Your task to perform on an android device: turn off notifications in google photos Image 0: 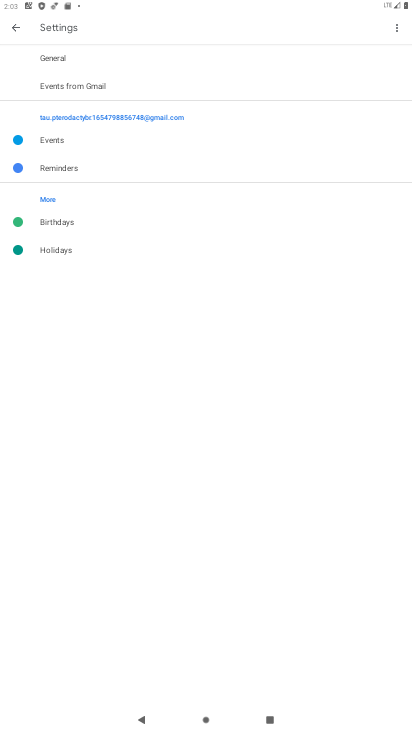
Step 0: press home button
Your task to perform on an android device: turn off notifications in google photos Image 1: 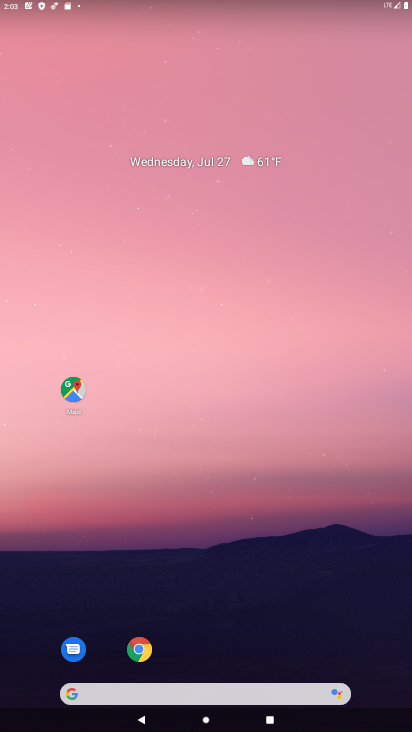
Step 1: drag from (167, 601) to (189, 36)
Your task to perform on an android device: turn off notifications in google photos Image 2: 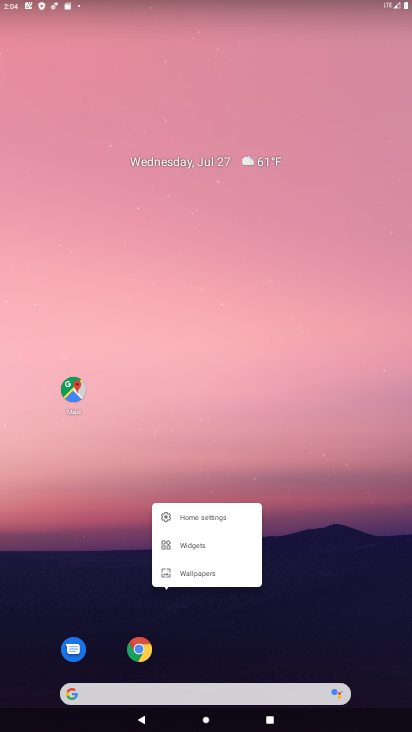
Step 2: click (183, 645)
Your task to perform on an android device: turn off notifications in google photos Image 3: 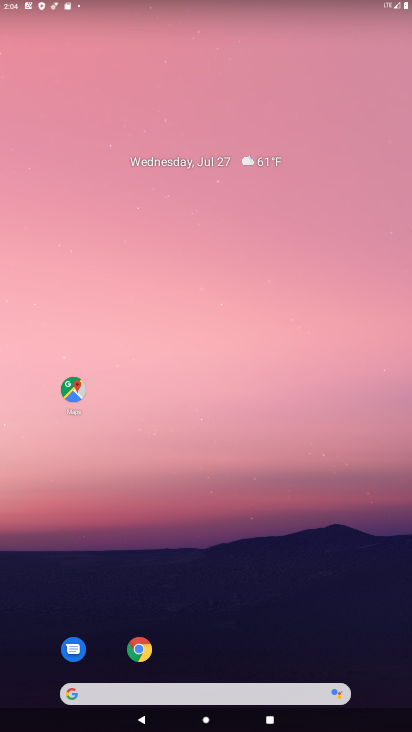
Step 3: drag from (177, 573) to (177, 135)
Your task to perform on an android device: turn off notifications in google photos Image 4: 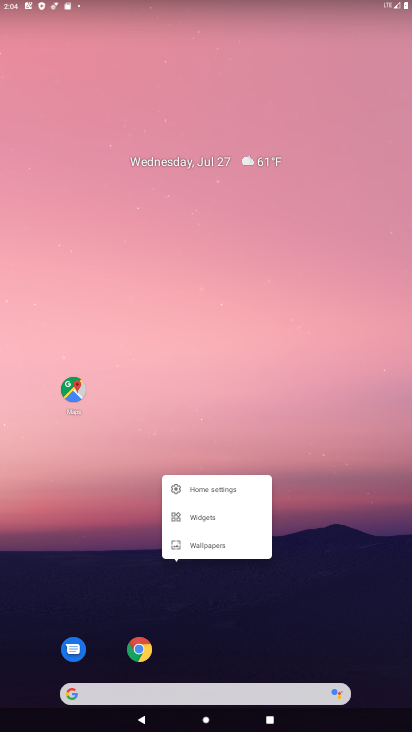
Step 4: click (185, 612)
Your task to perform on an android device: turn off notifications in google photos Image 5: 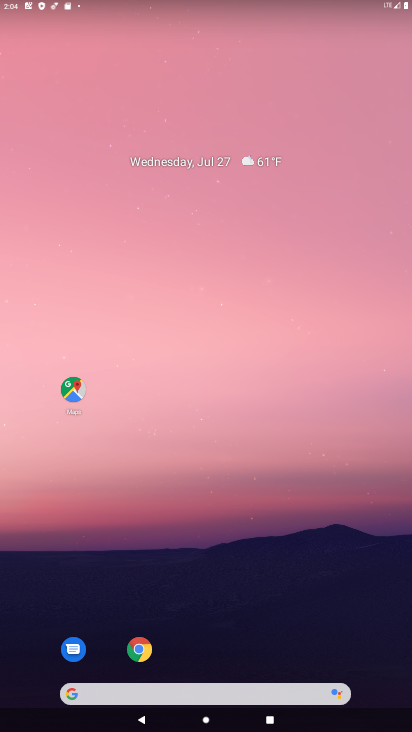
Step 5: drag from (185, 661) to (198, 199)
Your task to perform on an android device: turn off notifications in google photos Image 6: 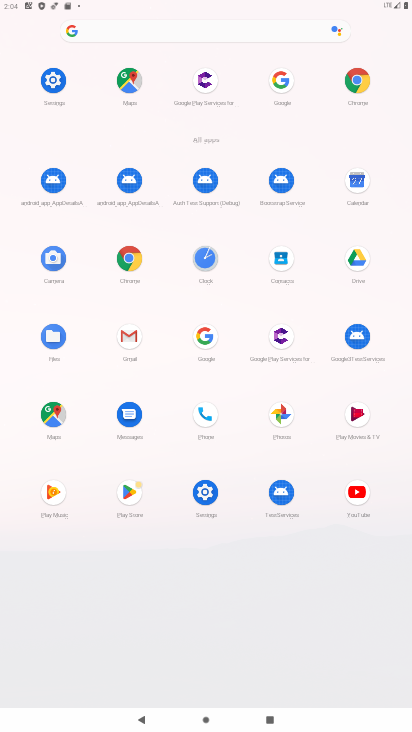
Step 6: click (283, 425)
Your task to perform on an android device: turn off notifications in google photos Image 7: 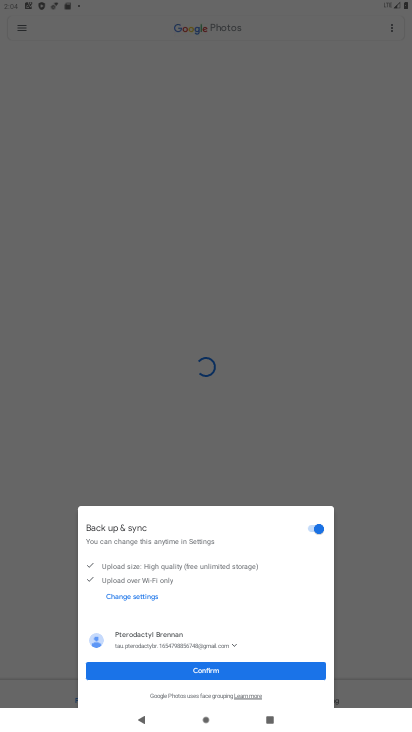
Step 7: click (203, 664)
Your task to perform on an android device: turn off notifications in google photos Image 8: 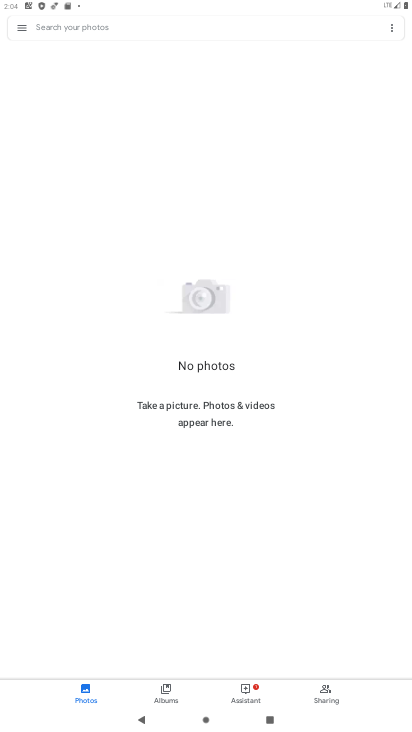
Step 8: click (24, 26)
Your task to perform on an android device: turn off notifications in google photos Image 9: 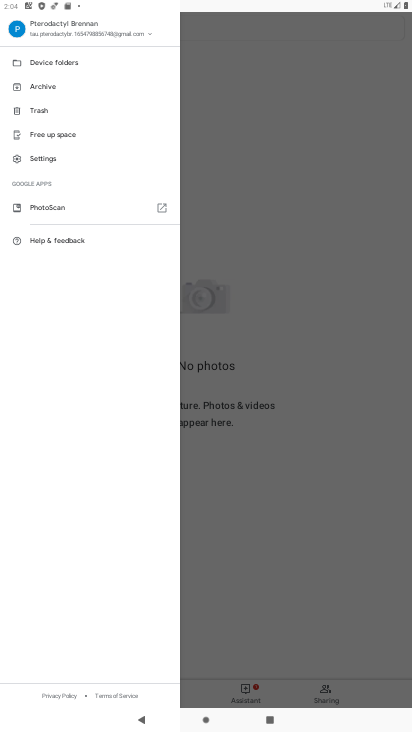
Step 9: click (41, 160)
Your task to perform on an android device: turn off notifications in google photos Image 10: 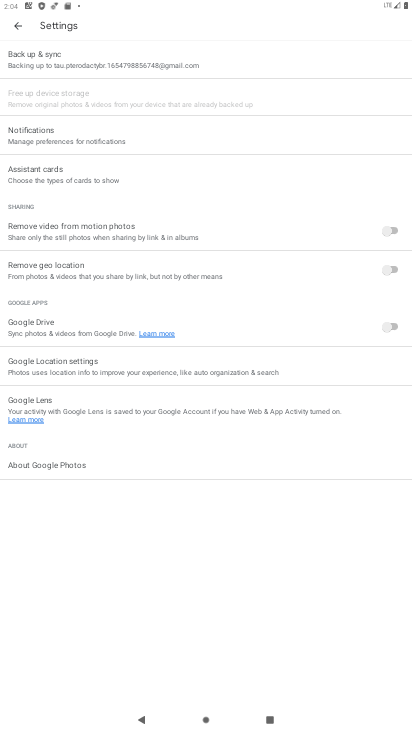
Step 10: click (59, 131)
Your task to perform on an android device: turn off notifications in google photos Image 11: 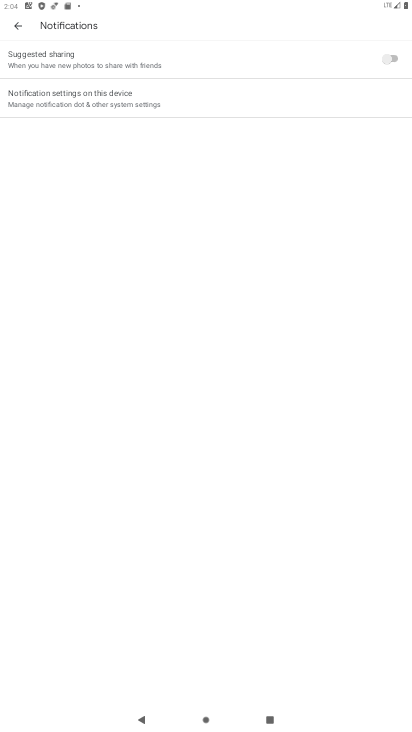
Step 11: task complete